Your task to perform on an android device: Open Youtube and go to "Your channel" Image 0: 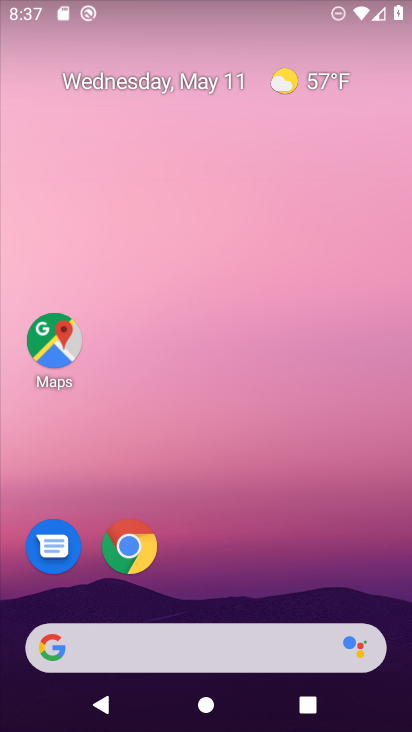
Step 0: drag from (254, 576) to (258, 260)
Your task to perform on an android device: Open Youtube and go to "Your channel" Image 1: 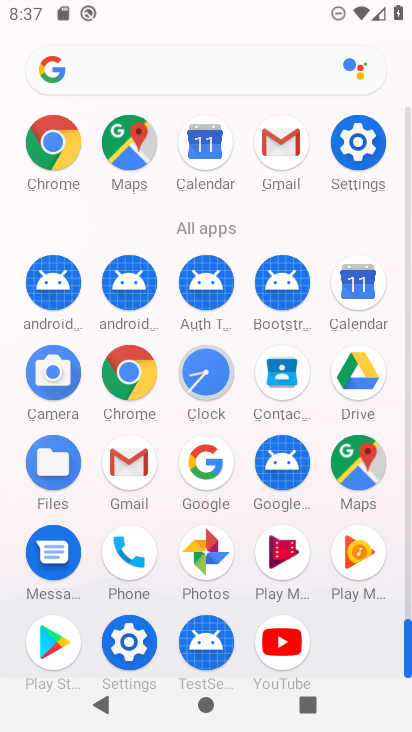
Step 1: click (278, 642)
Your task to perform on an android device: Open Youtube and go to "Your channel" Image 2: 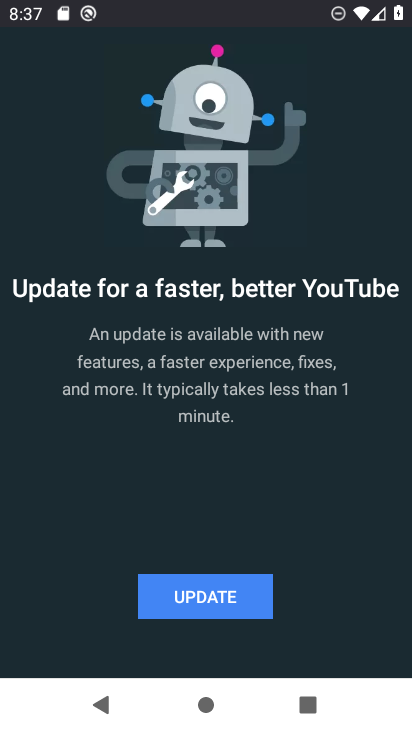
Step 2: click (211, 582)
Your task to perform on an android device: Open Youtube and go to "Your channel" Image 3: 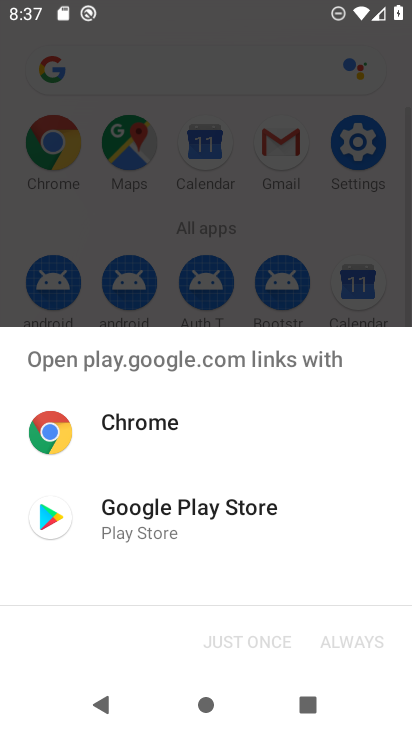
Step 3: drag from (191, 527) to (240, 527)
Your task to perform on an android device: Open Youtube and go to "Your channel" Image 4: 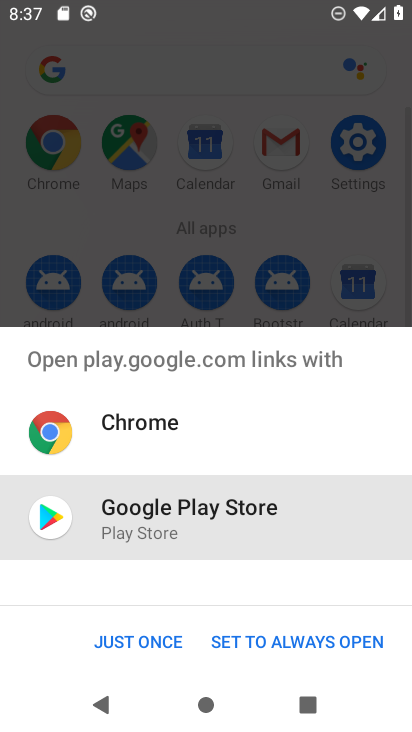
Step 4: click (151, 630)
Your task to perform on an android device: Open Youtube and go to "Your channel" Image 5: 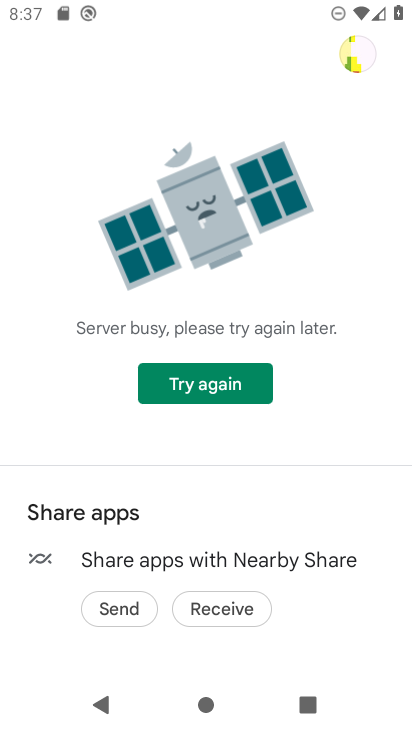
Step 5: press back button
Your task to perform on an android device: Open Youtube and go to "Your channel" Image 6: 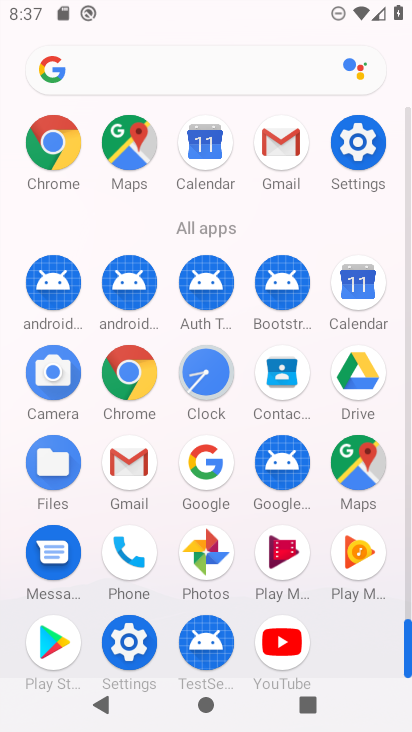
Step 6: click (287, 634)
Your task to perform on an android device: Open Youtube and go to "Your channel" Image 7: 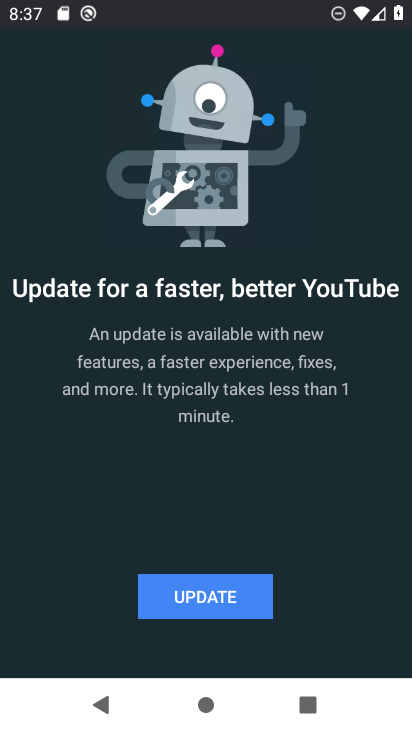
Step 7: click (163, 604)
Your task to perform on an android device: Open Youtube and go to "Your channel" Image 8: 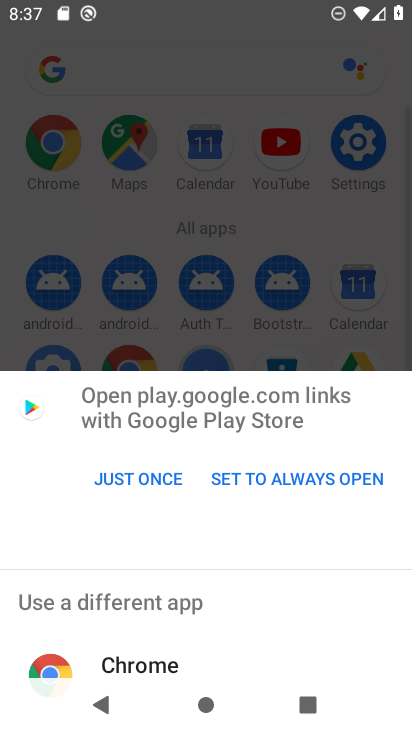
Step 8: click (183, 478)
Your task to perform on an android device: Open Youtube and go to "Your channel" Image 9: 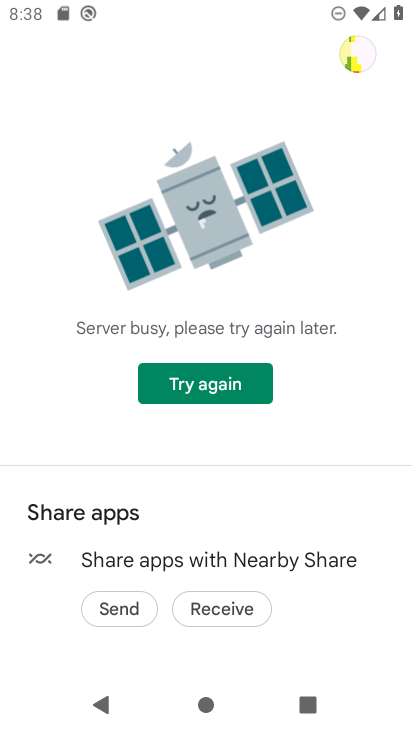
Step 9: task complete